Your task to perform on an android device: Do I have any events tomorrow? Image 0: 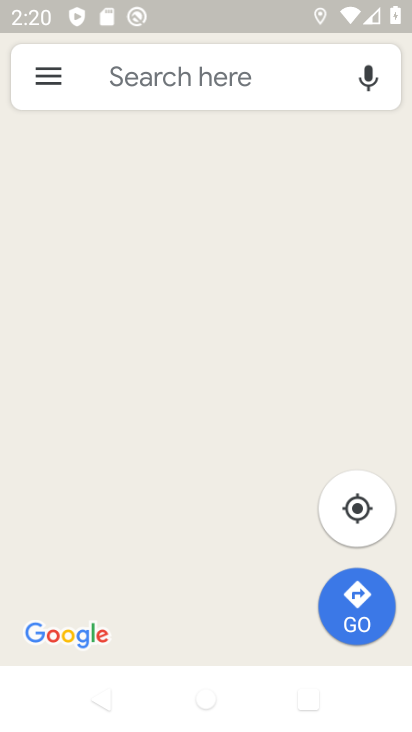
Step 0: press home button
Your task to perform on an android device: Do I have any events tomorrow? Image 1: 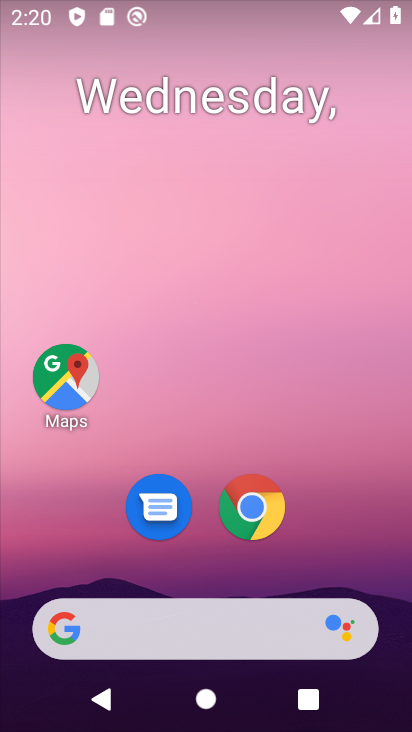
Step 1: drag from (338, 571) to (148, 12)
Your task to perform on an android device: Do I have any events tomorrow? Image 2: 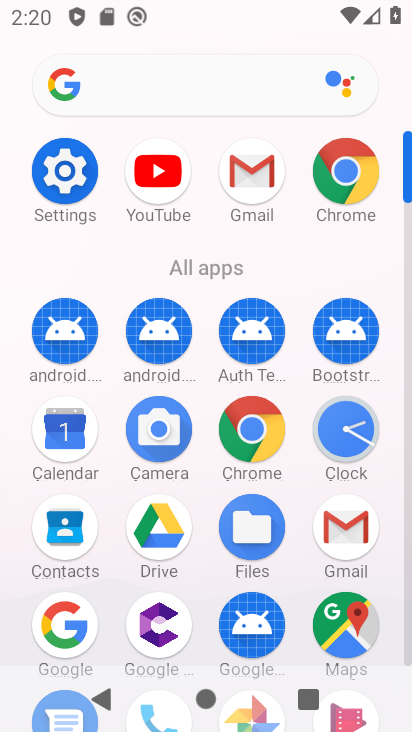
Step 2: click (77, 444)
Your task to perform on an android device: Do I have any events tomorrow? Image 3: 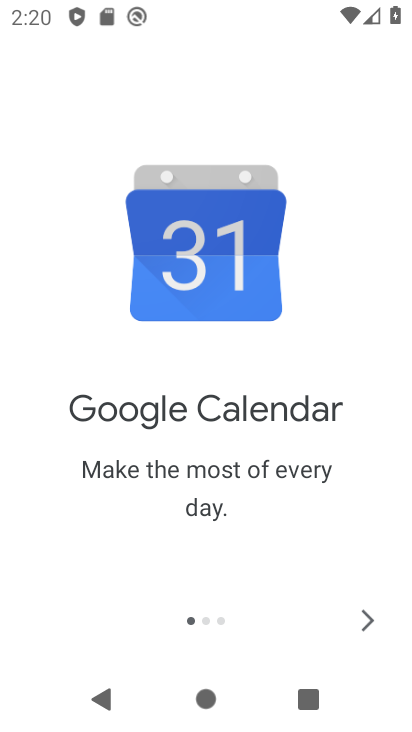
Step 3: click (363, 612)
Your task to perform on an android device: Do I have any events tomorrow? Image 4: 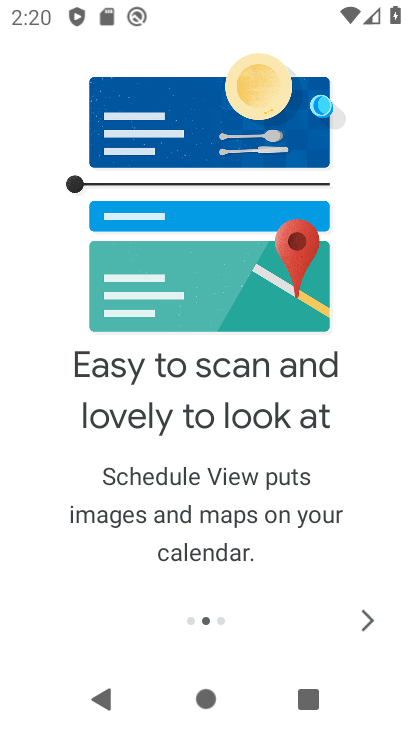
Step 4: click (363, 612)
Your task to perform on an android device: Do I have any events tomorrow? Image 5: 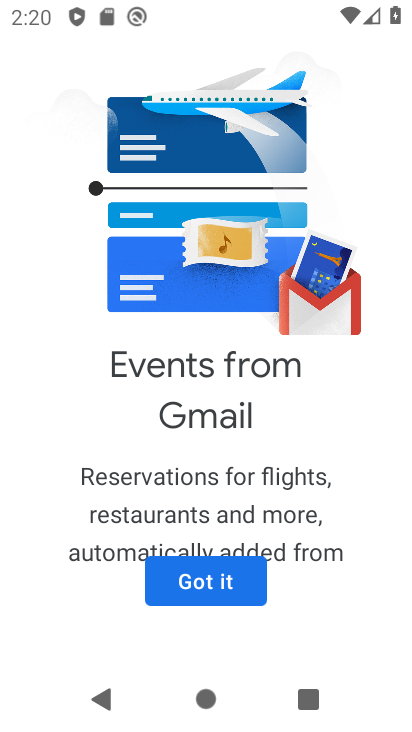
Step 5: click (226, 597)
Your task to perform on an android device: Do I have any events tomorrow? Image 6: 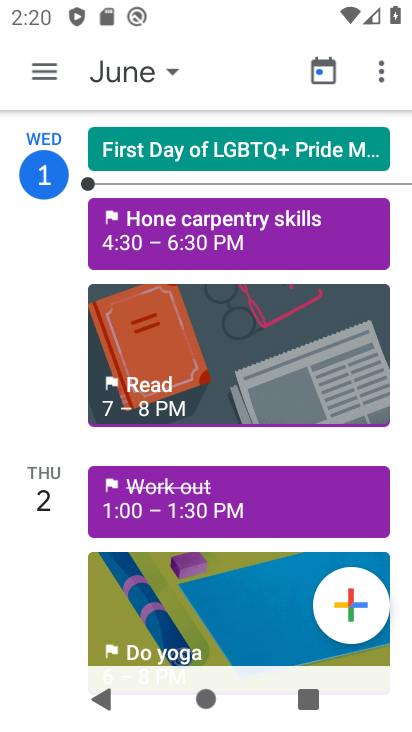
Step 6: click (53, 73)
Your task to perform on an android device: Do I have any events tomorrow? Image 7: 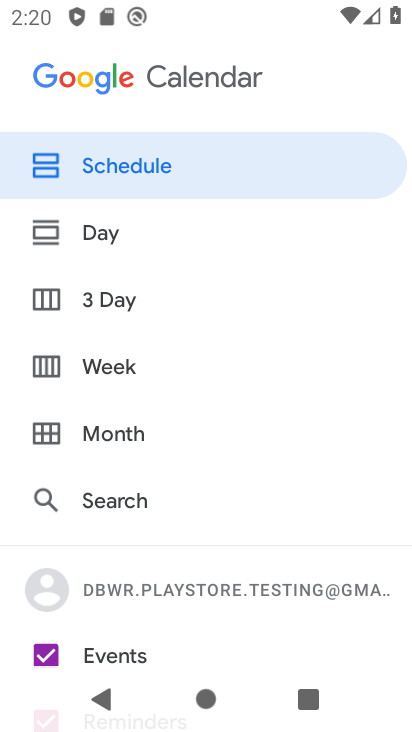
Step 7: click (200, 227)
Your task to perform on an android device: Do I have any events tomorrow? Image 8: 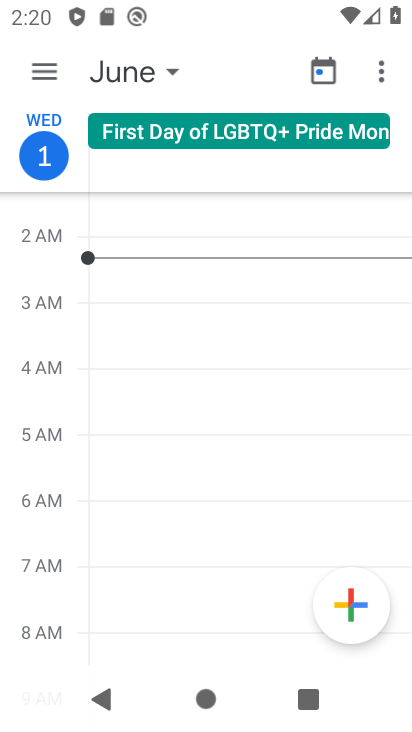
Step 8: click (143, 57)
Your task to perform on an android device: Do I have any events tomorrow? Image 9: 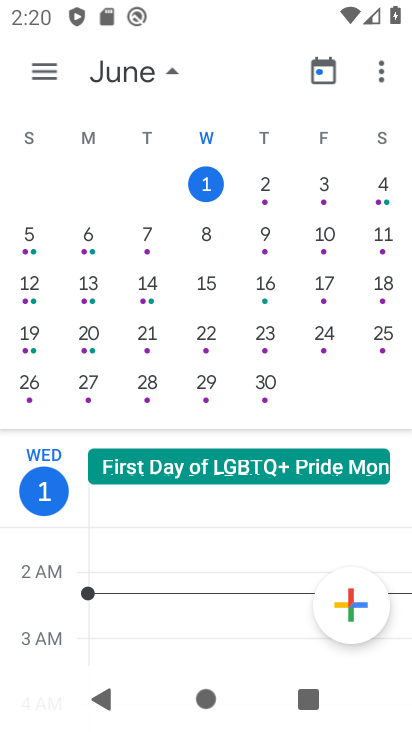
Step 9: click (256, 181)
Your task to perform on an android device: Do I have any events tomorrow? Image 10: 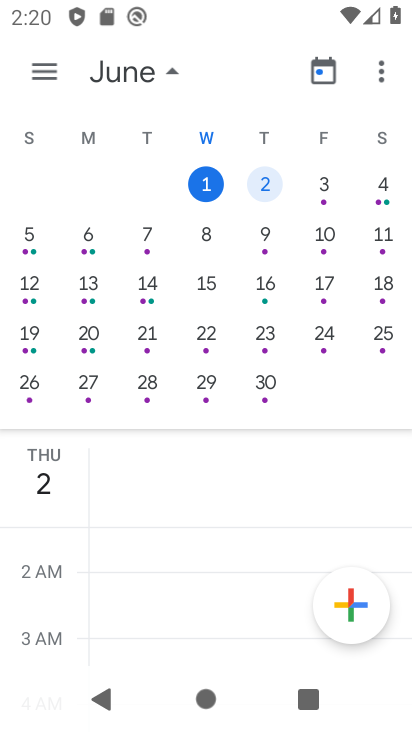
Step 10: task complete